Your task to perform on an android device: see creations saved in the google photos Image 0: 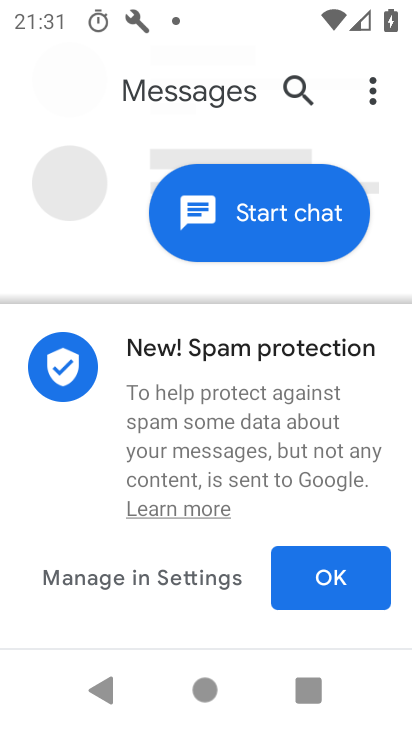
Step 0: press back button
Your task to perform on an android device: see creations saved in the google photos Image 1: 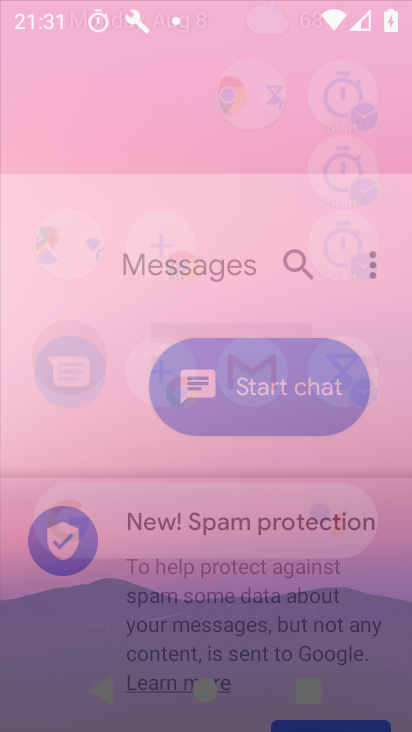
Step 1: press back button
Your task to perform on an android device: see creations saved in the google photos Image 2: 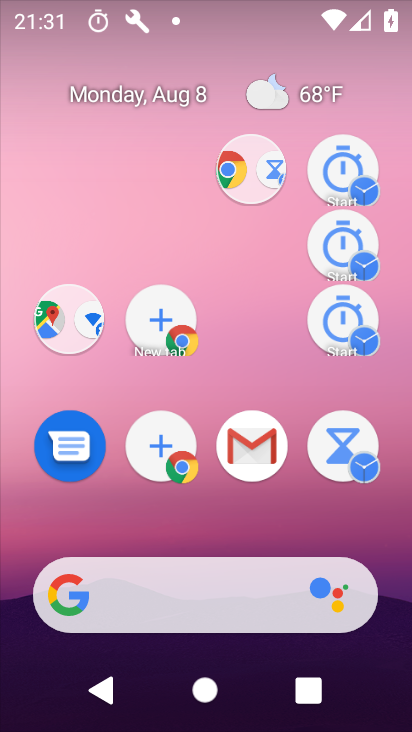
Step 2: click (206, 324)
Your task to perform on an android device: see creations saved in the google photos Image 3: 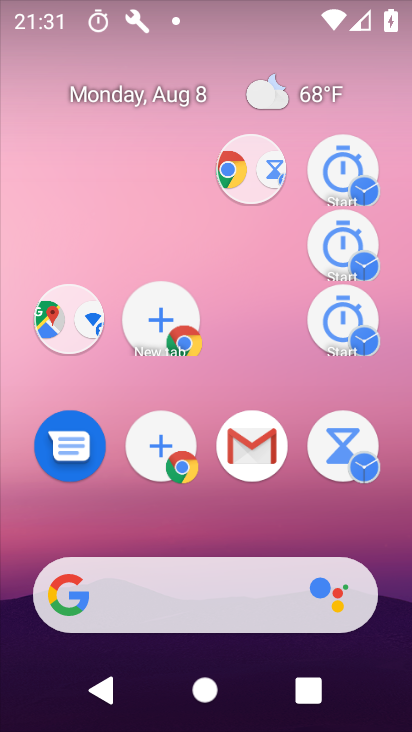
Step 3: drag from (244, 631) to (235, 191)
Your task to perform on an android device: see creations saved in the google photos Image 4: 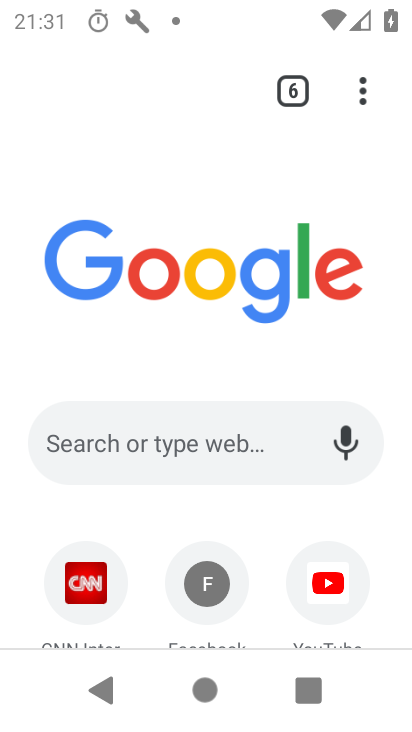
Step 4: drag from (288, 590) to (226, 212)
Your task to perform on an android device: see creations saved in the google photos Image 5: 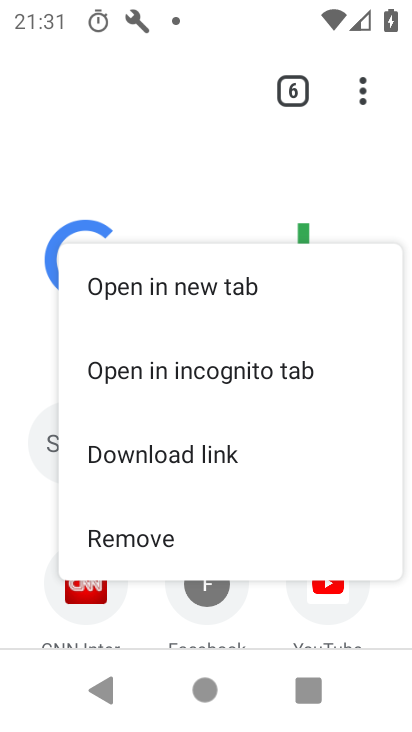
Step 5: press home button
Your task to perform on an android device: see creations saved in the google photos Image 6: 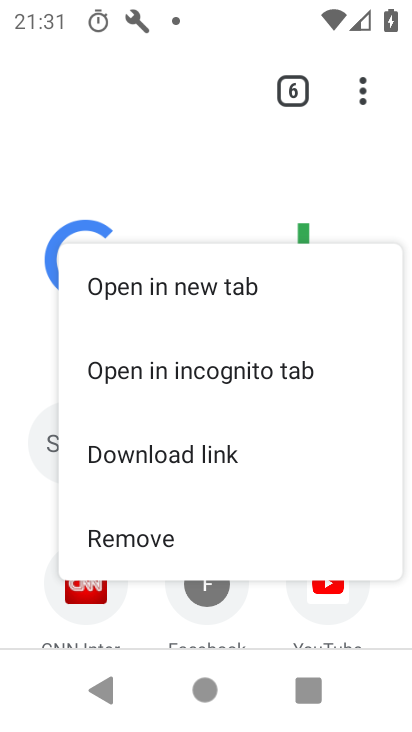
Step 6: press home button
Your task to perform on an android device: see creations saved in the google photos Image 7: 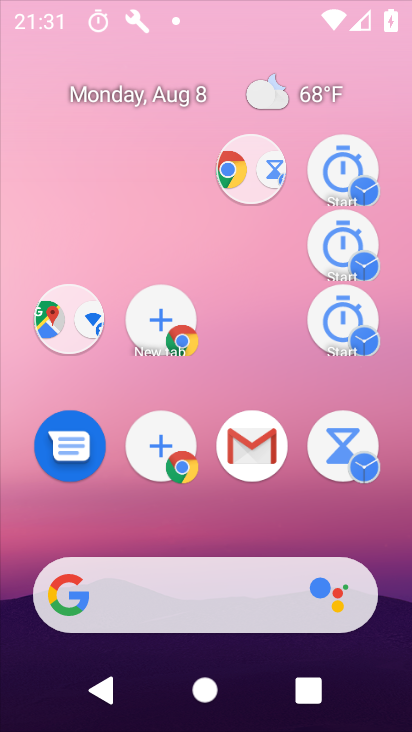
Step 7: press home button
Your task to perform on an android device: see creations saved in the google photos Image 8: 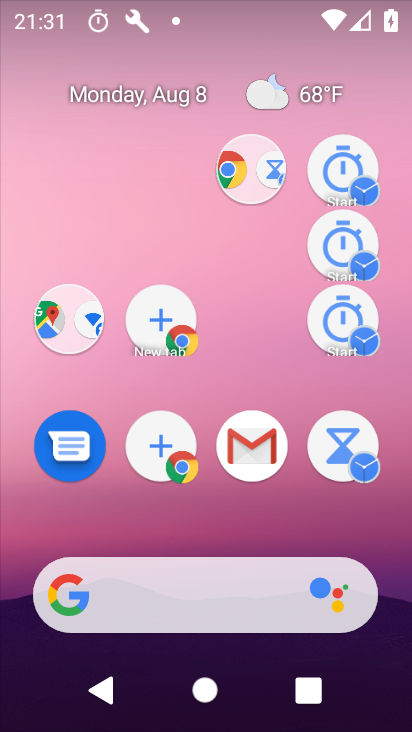
Step 8: drag from (249, 661) to (263, 238)
Your task to perform on an android device: see creations saved in the google photos Image 9: 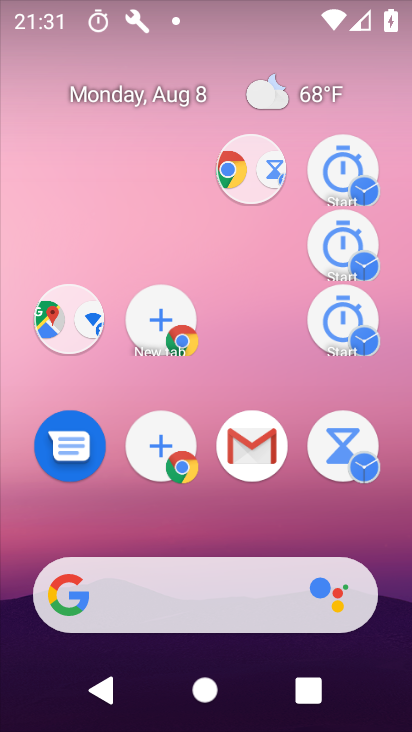
Step 9: drag from (270, 662) to (154, 229)
Your task to perform on an android device: see creations saved in the google photos Image 10: 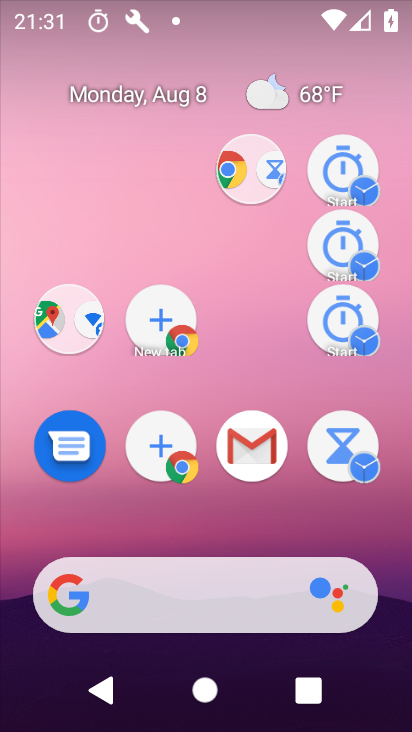
Step 10: drag from (206, 592) to (170, 363)
Your task to perform on an android device: see creations saved in the google photos Image 11: 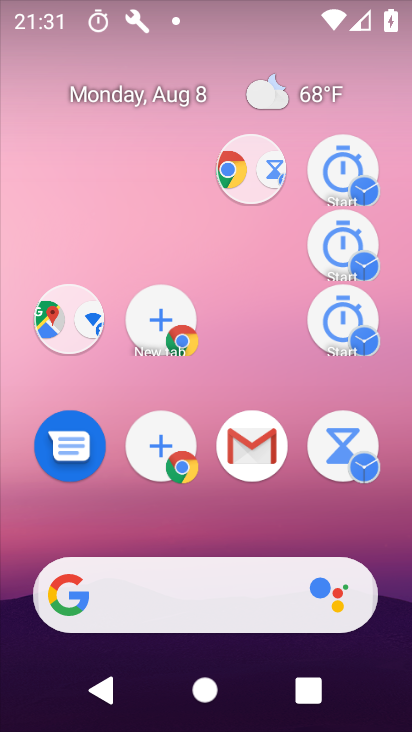
Step 11: drag from (238, 527) to (214, 202)
Your task to perform on an android device: see creations saved in the google photos Image 12: 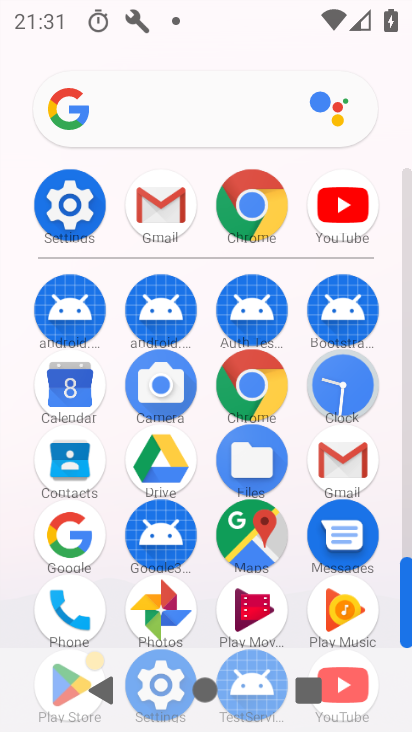
Step 12: click (164, 608)
Your task to perform on an android device: see creations saved in the google photos Image 13: 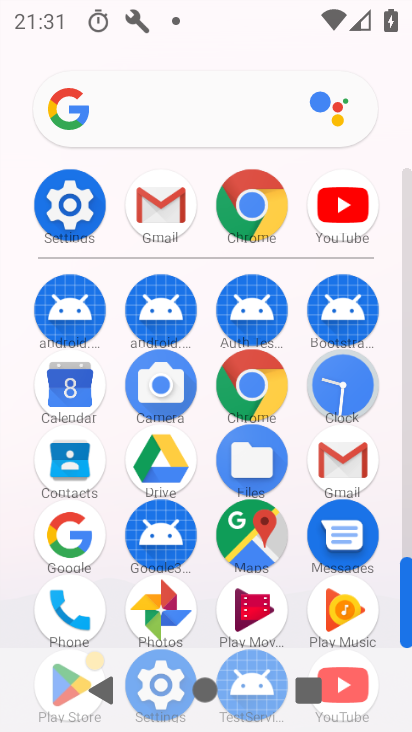
Step 13: click (165, 608)
Your task to perform on an android device: see creations saved in the google photos Image 14: 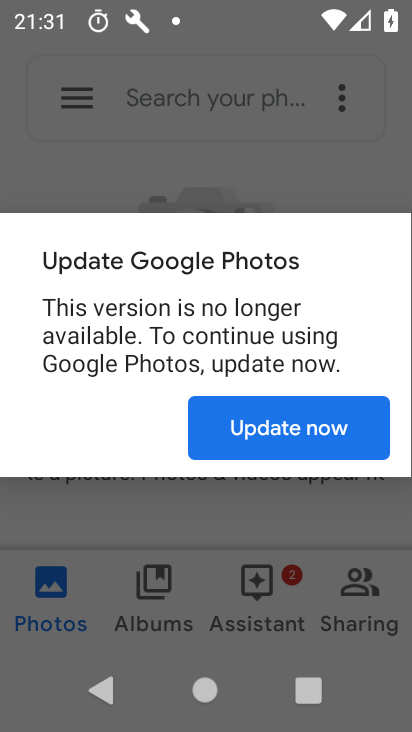
Step 14: click (285, 427)
Your task to perform on an android device: see creations saved in the google photos Image 15: 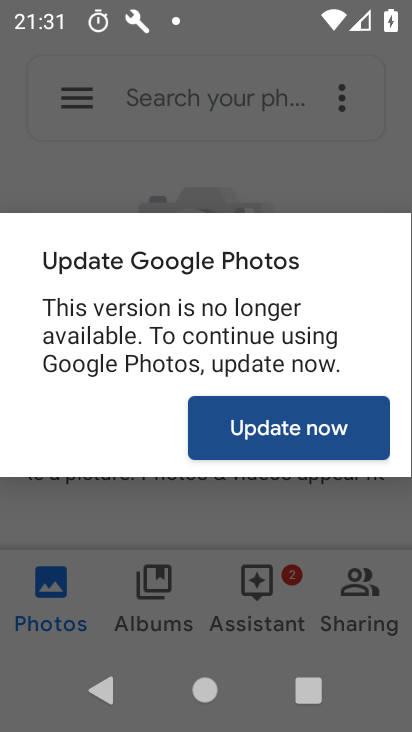
Step 15: click (286, 426)
Your task to perform on an android device: see creations saved in the google photos Image 16: 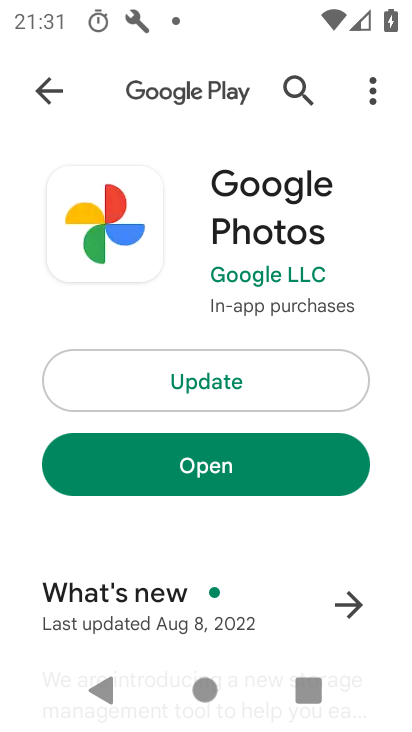
Step 16: click (220, 387)
Your task to perform on an android device: see creations saved in the google photos Image 17: 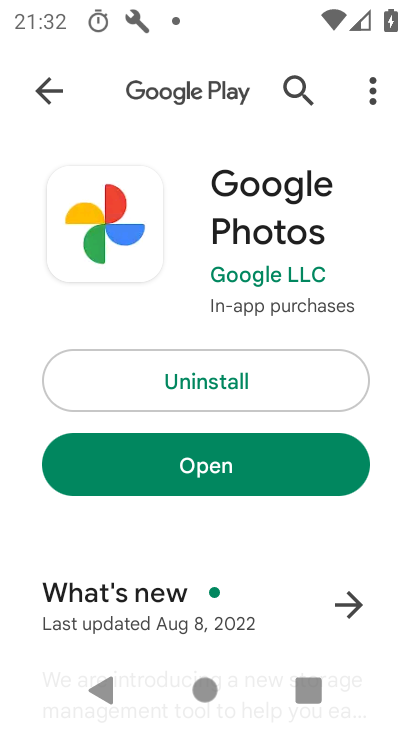
Step 17: click (210, 467)
Your task to perform on an android device: see creations saved in the google photos Image 18: 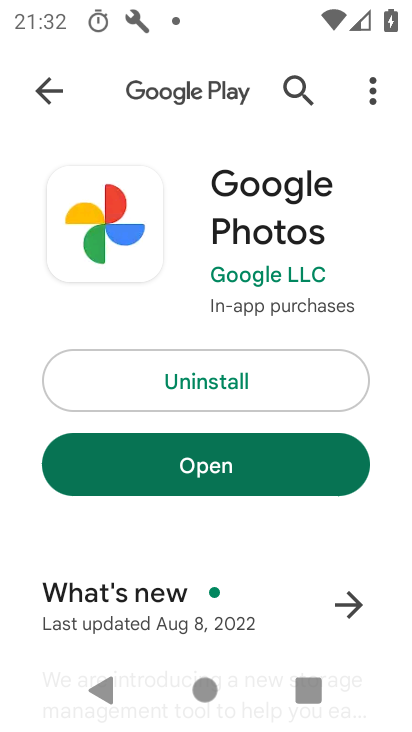
Step 18: click (213, 471)
Your task to perform on an android device: see creations saved in the google photos Image 19: 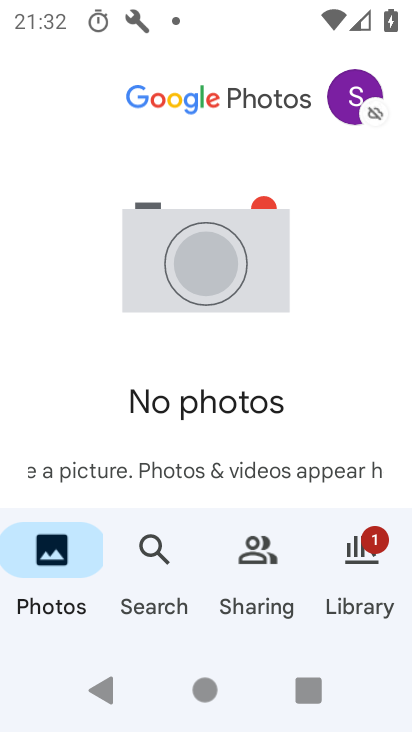
Step 19: task complete